Your task to perform on an android device: change the clock display to analog Image 0: 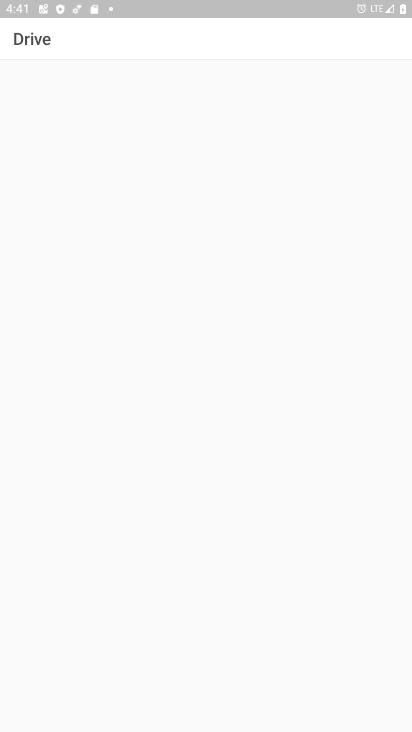
Step 0: press home button
Your task to perform on an android device: change the clock display to analog Image 1: 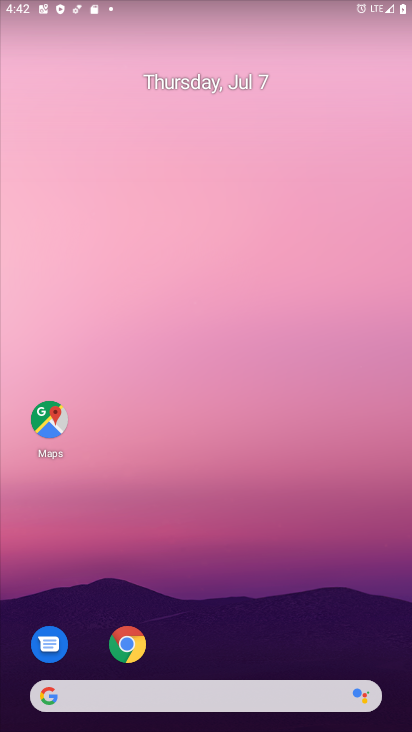
Step 1: drag from (218, 655) to (237, 223)
Your task to perform on an android device: change the clock display to analog Image 2: 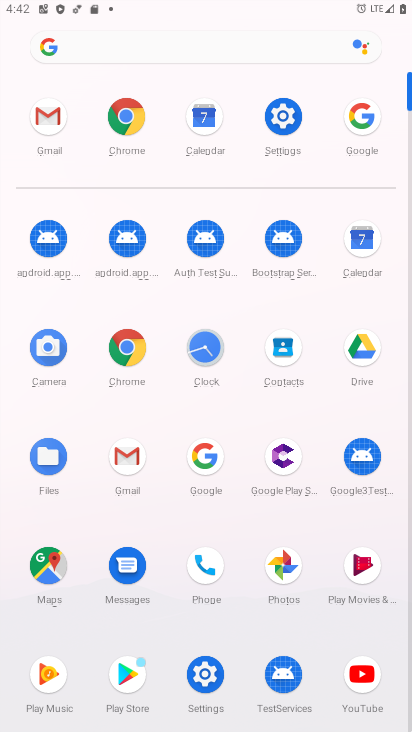
Step 2: click (205, 347)
Your task to perform on an android device: change the clock display to analog Image 3: 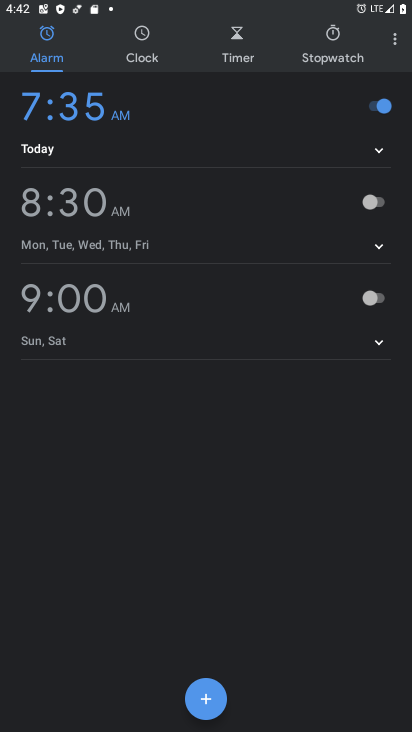
Step 3: click (395, 40)
Your task to perform on an android device: change the clock display to analog Image 4: 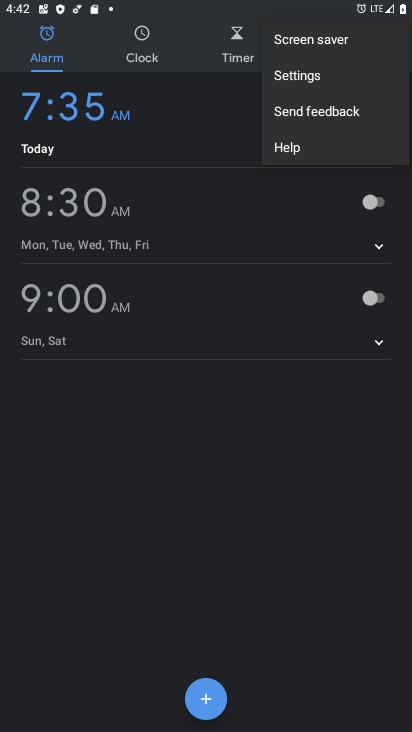
Step 4: click (319, 74)
Your task to perform on an android device: change the clock display to analog Image 5: 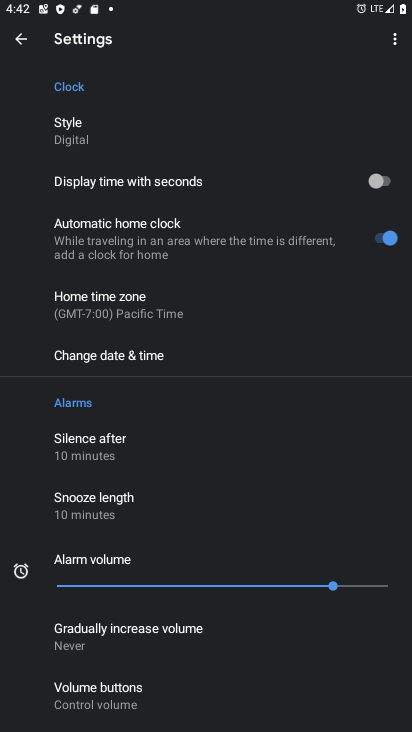
Step 5: click (84, 137)
Your task to perform on an android device: change the clock display to analog Image 6: 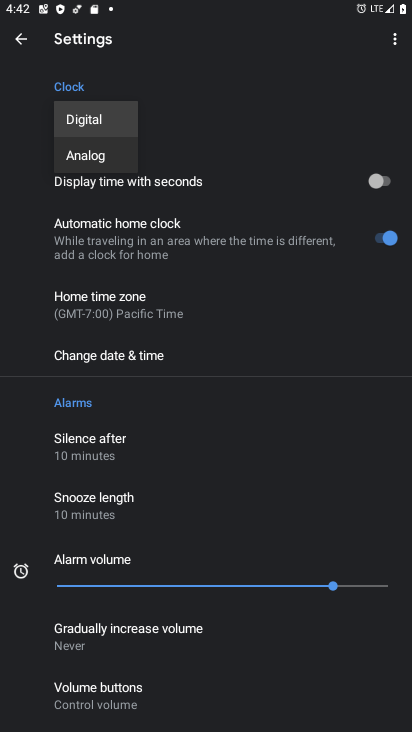
Step 6: click (84, 155)
Your task to perform on an android device: change the clock display to analog Image 7: 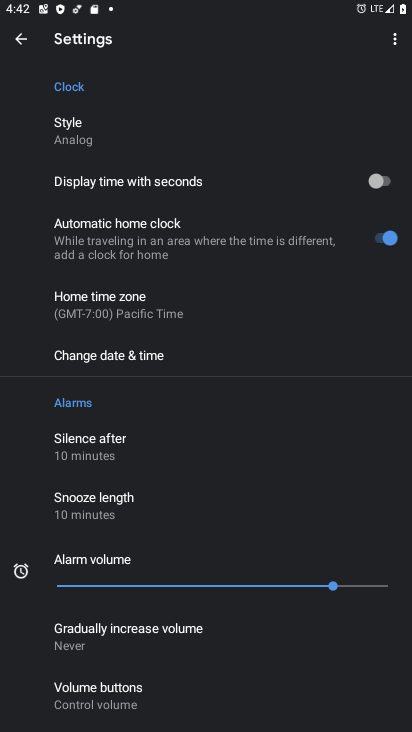
Step 7: task complete